Your task to perform on an android device: View the shopping cart on walmart. Image 0: 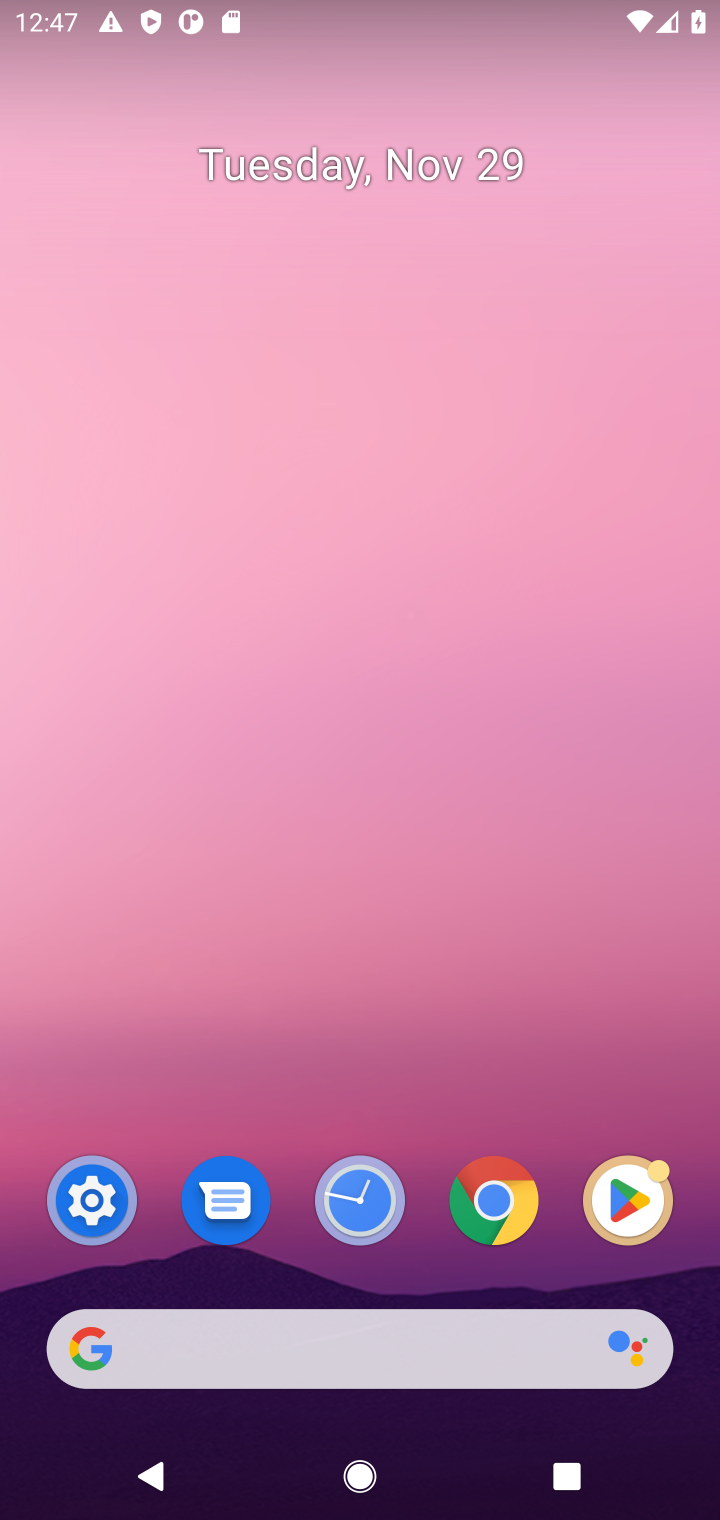
Step 0: click (286, 1323)
Your task to perform on an android device: View the shopping cart on walmart. Image 1: 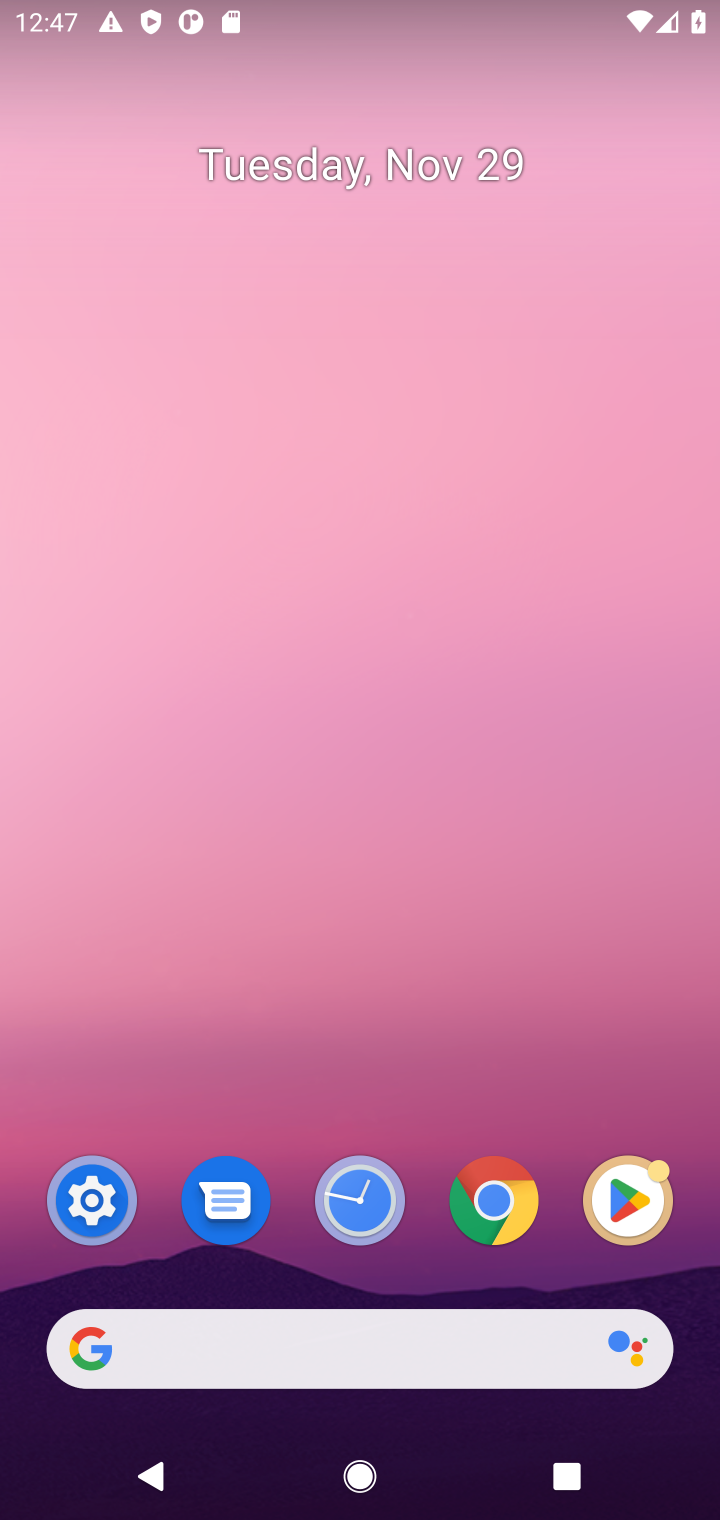
Step 1: task complete